Your task to perform on an android device: Toggle the flashlight Image 0: 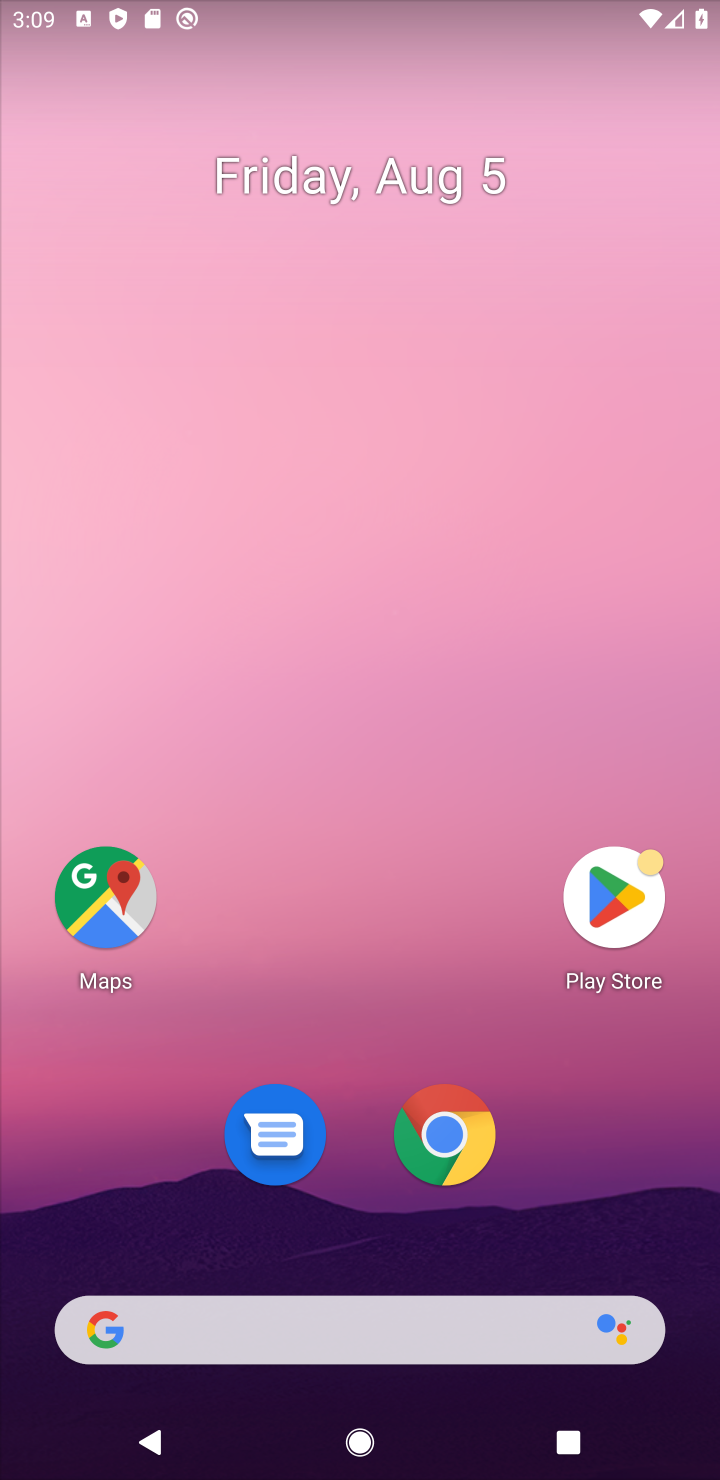
Step 0: drag from (398, 715) to (401, 243)
Your task to perform on an android device: Toggle the flashlight Image 1: 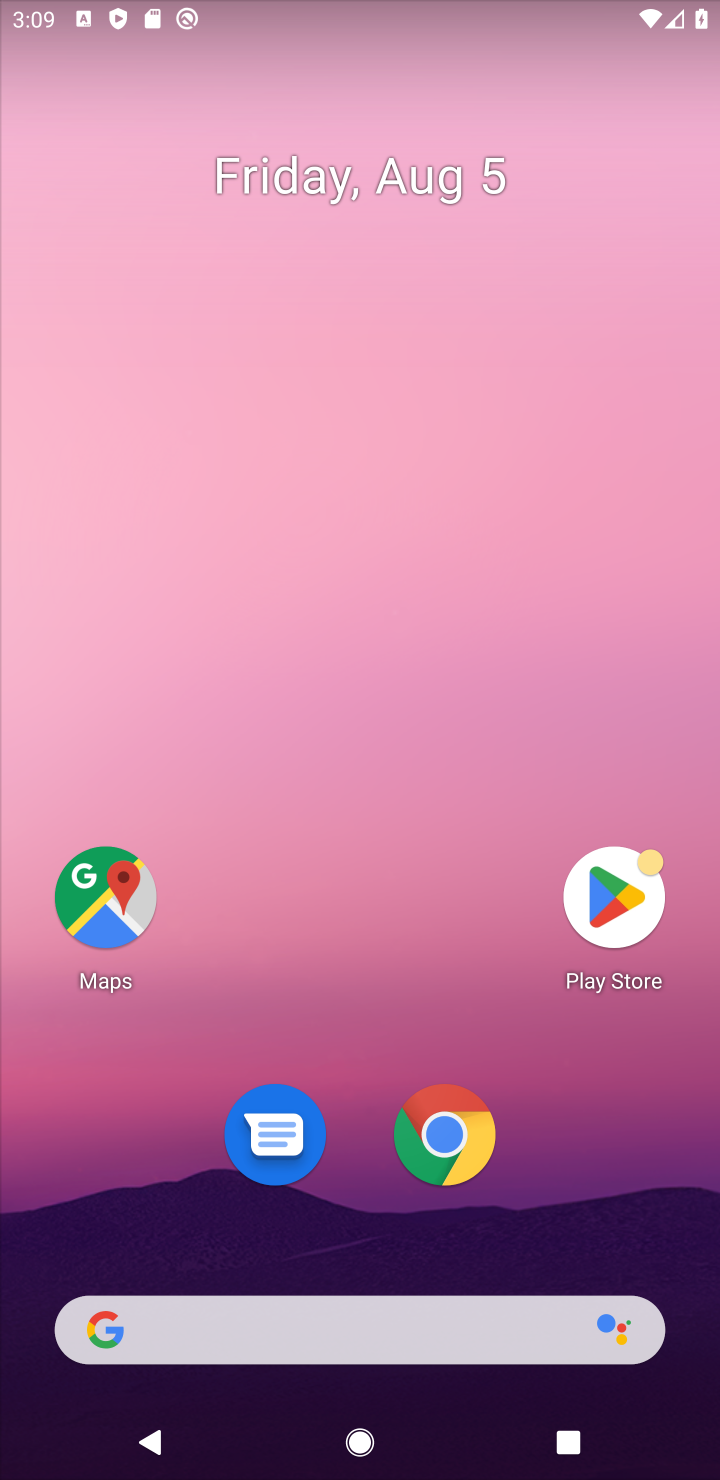
Step 1: task complete